Your task to perform on an android device: Go to calendar. Show me events next week Image 0: 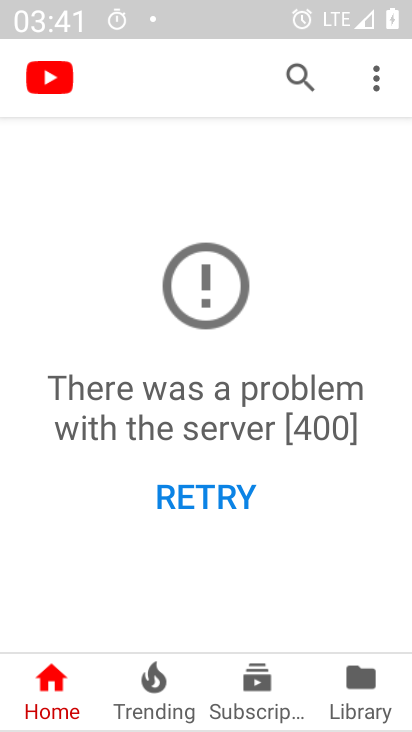
Step 0: press back button
Your task to perform on an android device: Go to calendar. Show me events next week Image 1: 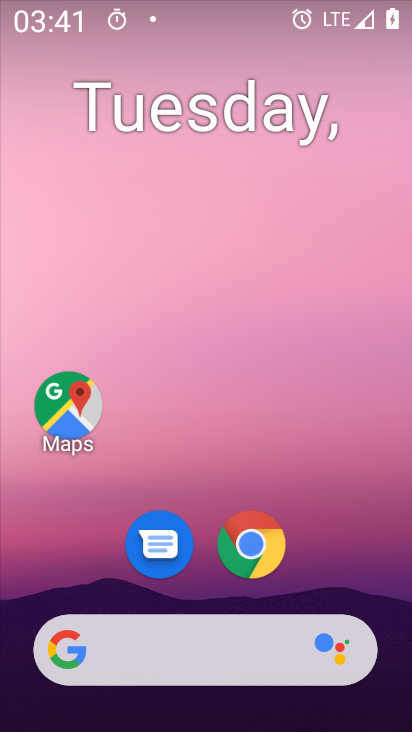
Step 1: drag from (356, 543) to (239, 12)
Your task to perform on an android device: Go to calendar. Show me events next week Image 2: 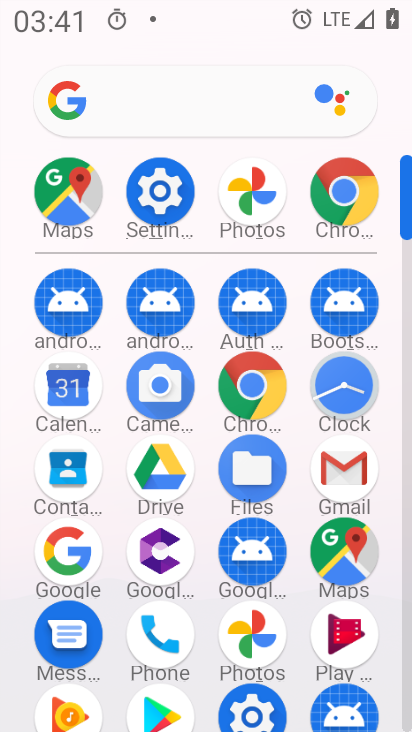
Step 2: drag from (18, 564) to (16, 237)
Your task to perform on an android device: Go to calendar. Show me events next week Image 3: 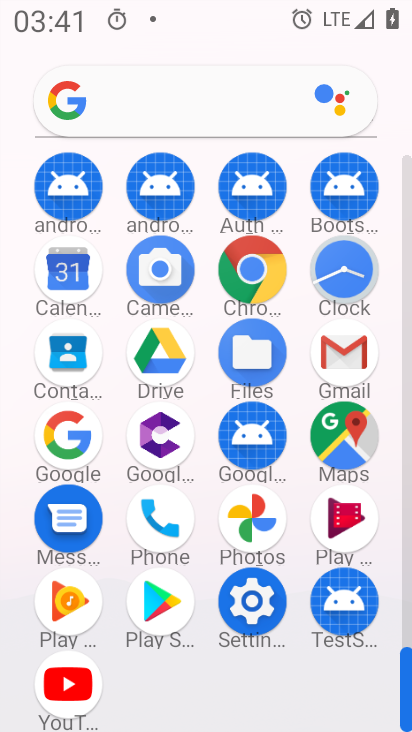
Step 3: click (67, 263)
Your task to perform on an android device: Go to calendar. Show me events next week Image 4: 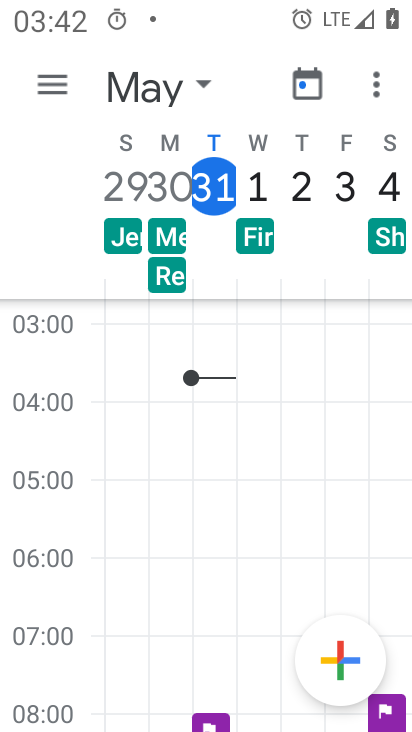
Step 4: task complete